Your task to perform on an android device: change the upload size in google photos Image 0: 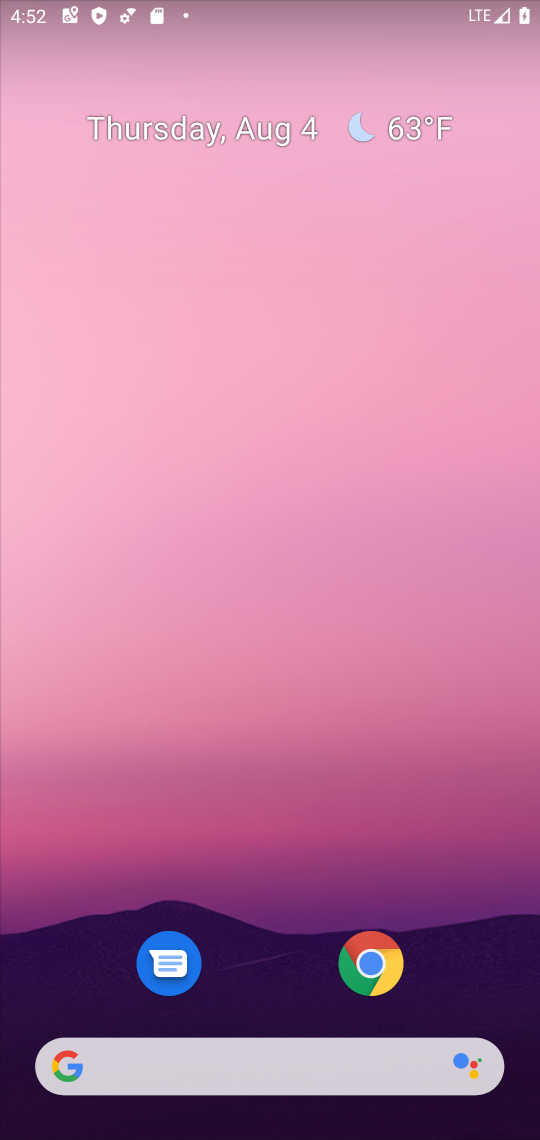
Step 0: drag from (280, 899) to (229, 81)
Your task to perform on an android device: change the upload size in google photos Image 1: 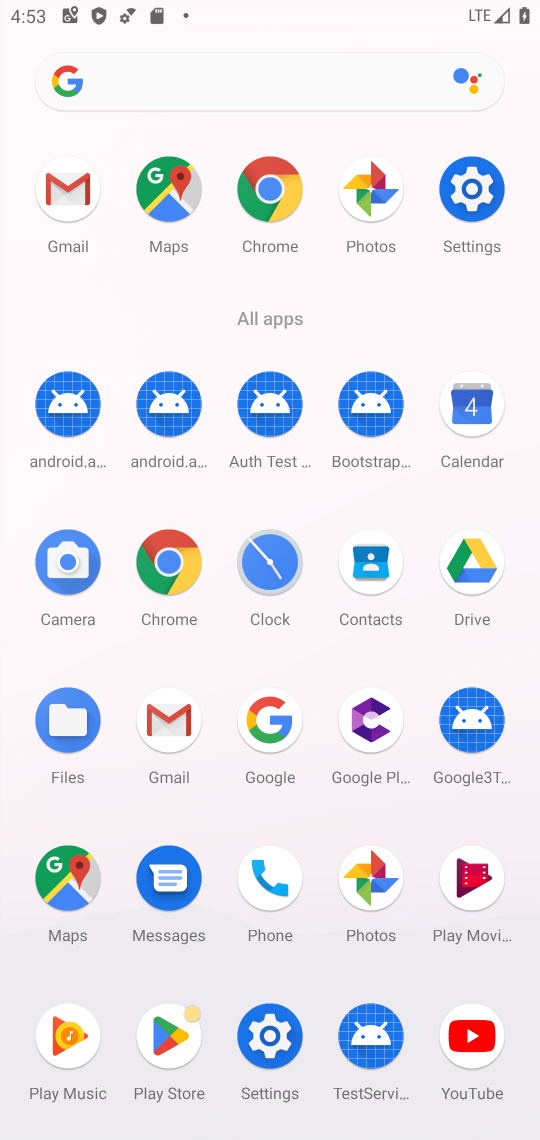
Step 1: click (371, 881)
Your task to perform on an android device: change the upload size in google photos Image 2: 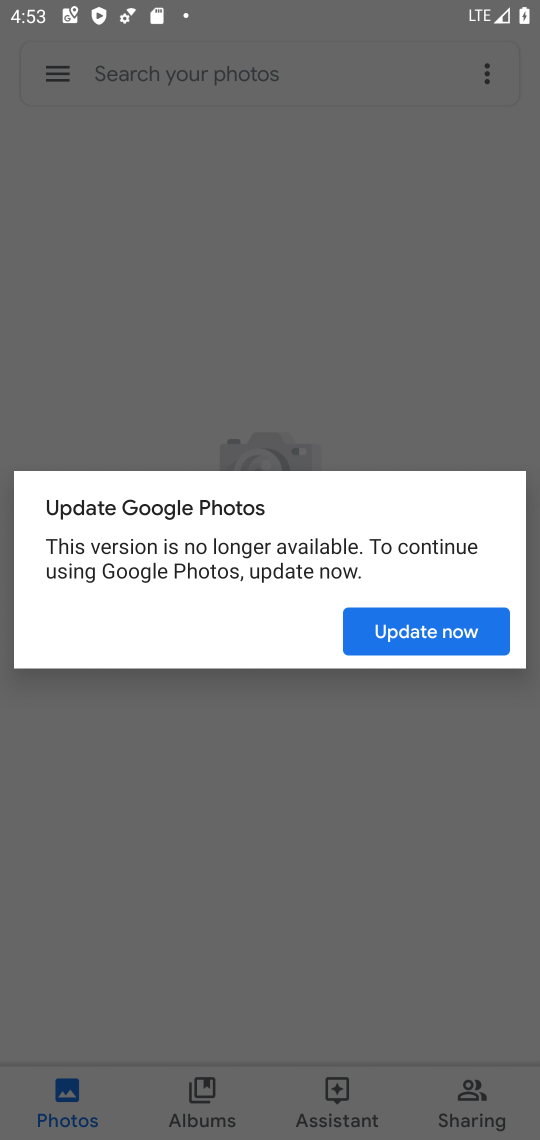
Step 2: click (407, 626)
Your task to perform on an android device: change the upload size in google photos Image 3: 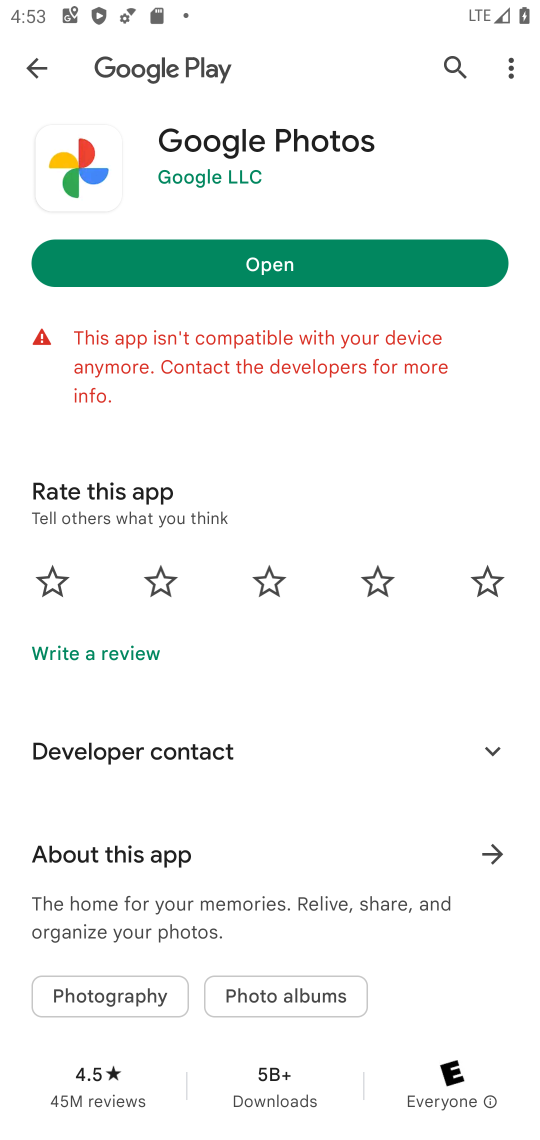
Step 3: click (266, 272)
Your task to perform on an android device: change the upload size in google photos Image 4: 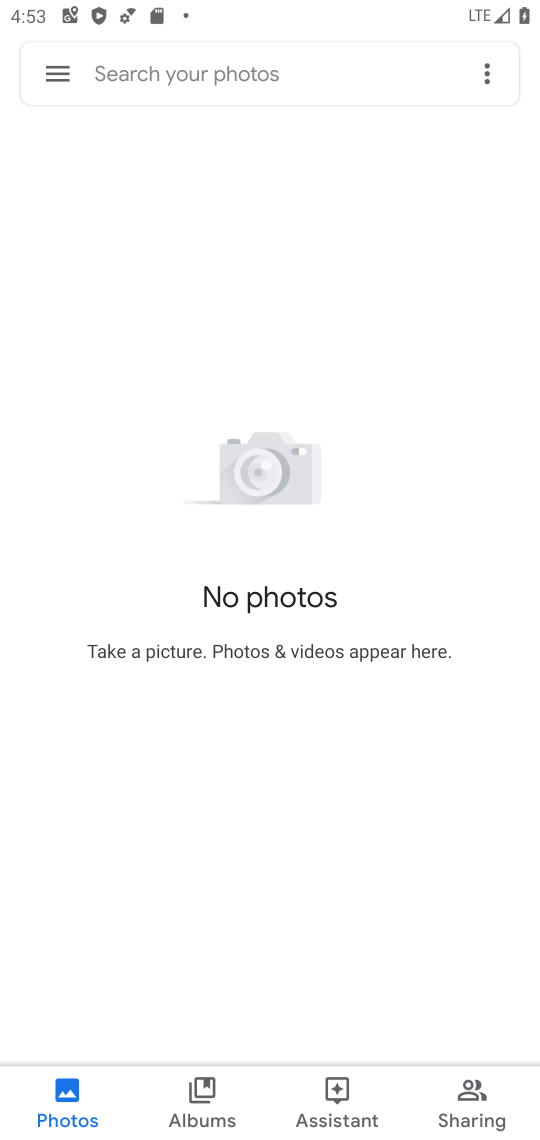
Step 4: click (48, 73)
Your task to perform on an android device: change the upload size in google photos Image 5: 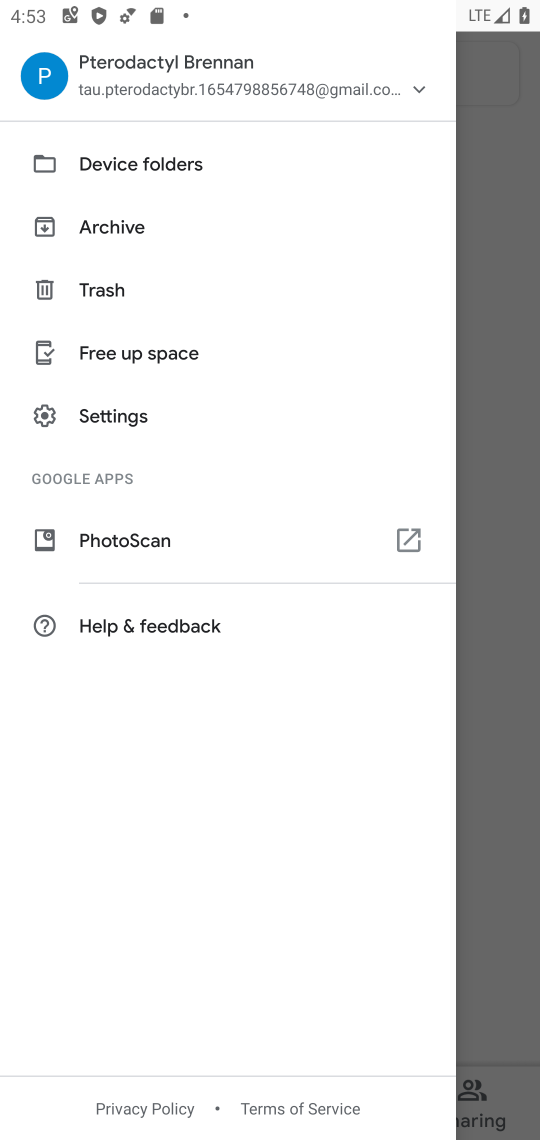
Step 5: click (96, 411)
Your task to perform on an android device: change the upload size in google photos Image 6: 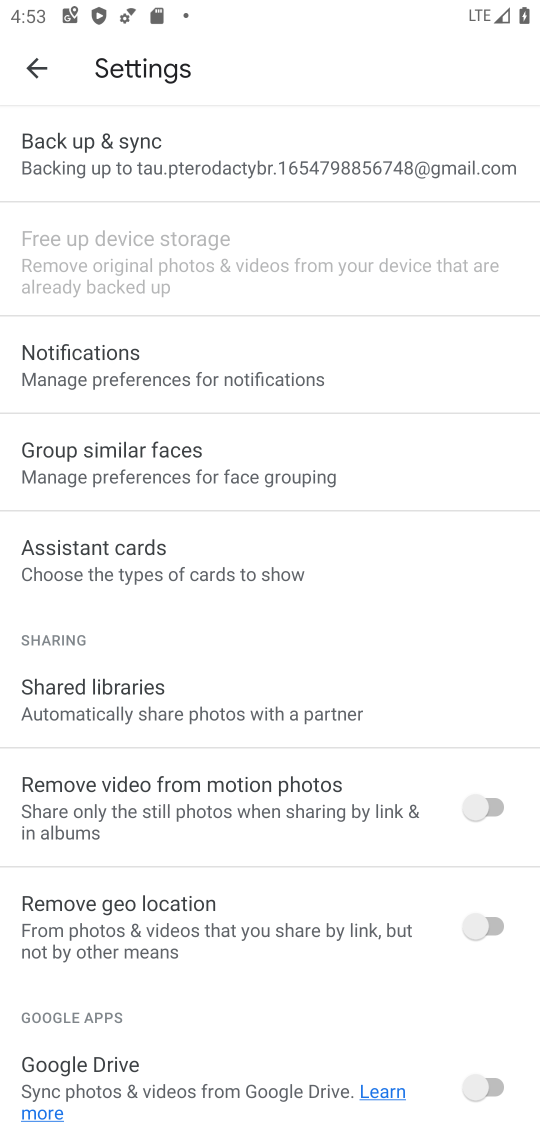
Step 6: click (96, 411)
Your task to perform on an android device: change the upload size in google photos Image 7: 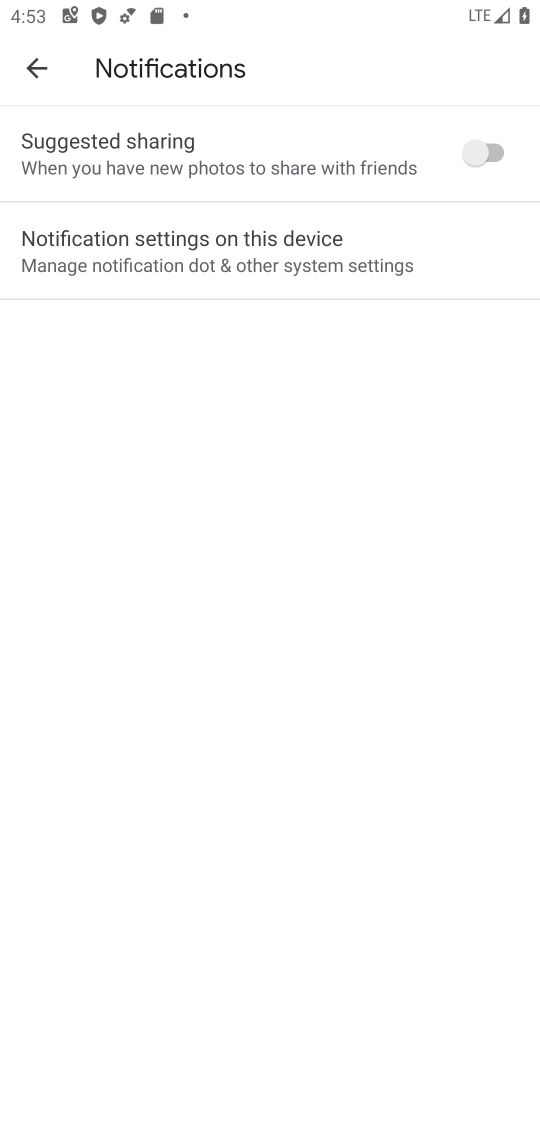
Step 7: task complete